Your task to perform on an android device: empty trash in google photos Image 0: 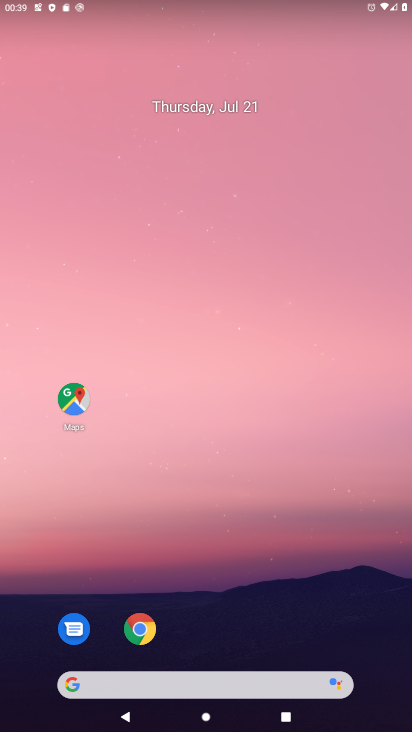
Step 0: drag from (338, 584) to (365, 253)
Your task to perform on an android device: empty trash in google photos Image 1: 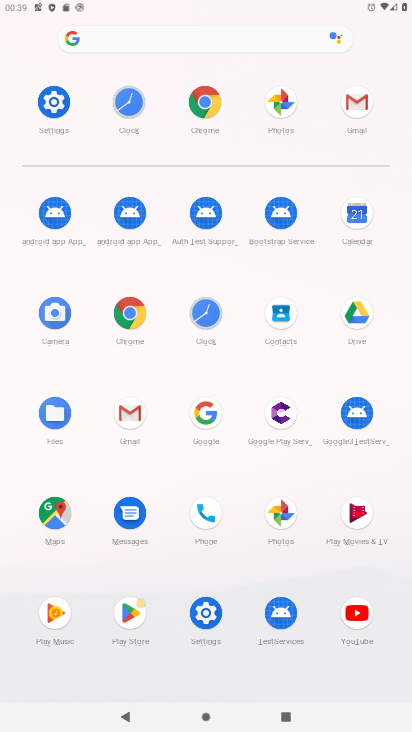
Step 1: click (284, 512)
Your task to perform on an android device: empty trash in google photos Image 2: 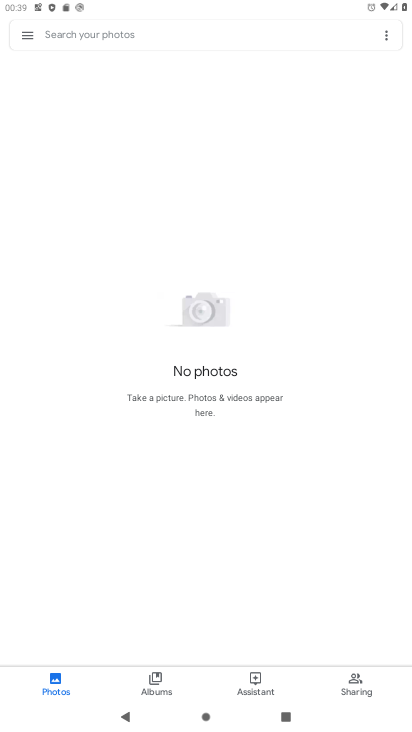
Step 2: click (25, 42)
Your task to perform on an android device: empty trash in google photos Image 3: 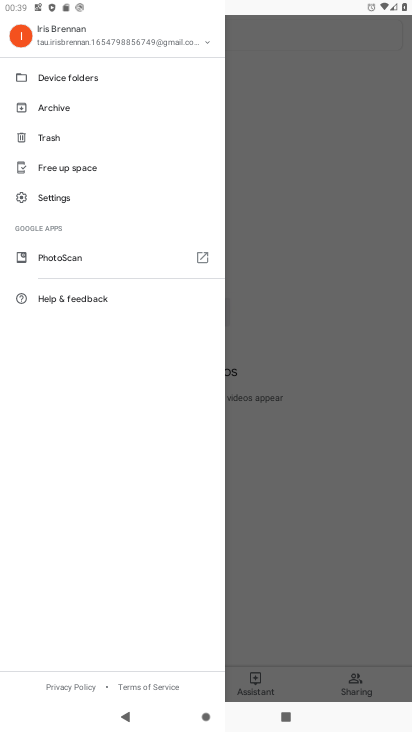
Step 3: click (49, 139)
Your task to perform on an android device: empty trash in google photos Image 4: 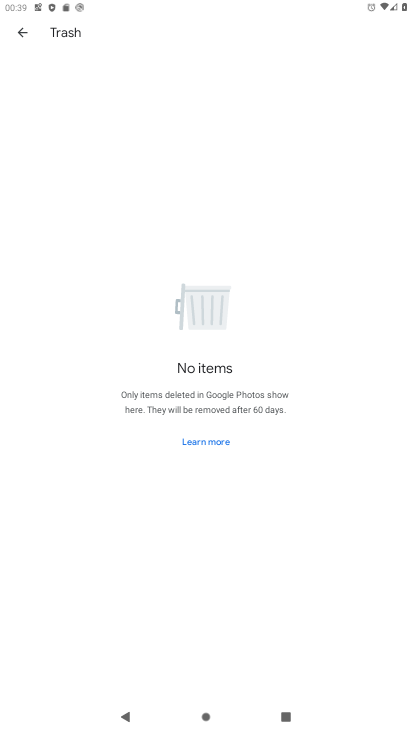
Step 4: task complete